Your task to perform on an android device: Set the phone to "Do not disturb". Image 0: 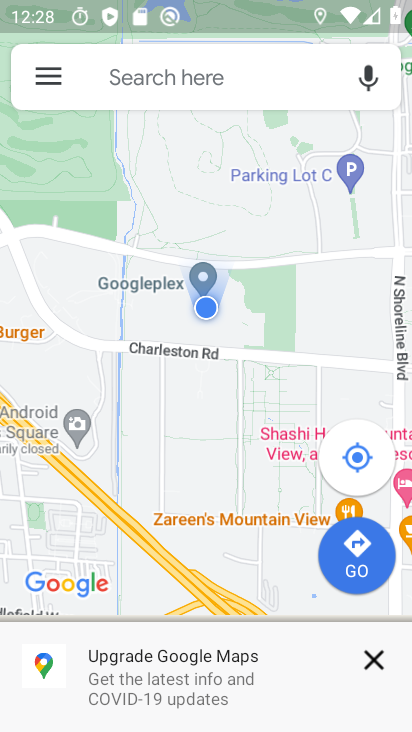
Step 0: press home button
Your task to perform on an android device: Set the phone to "Do not disturb". Image 1: 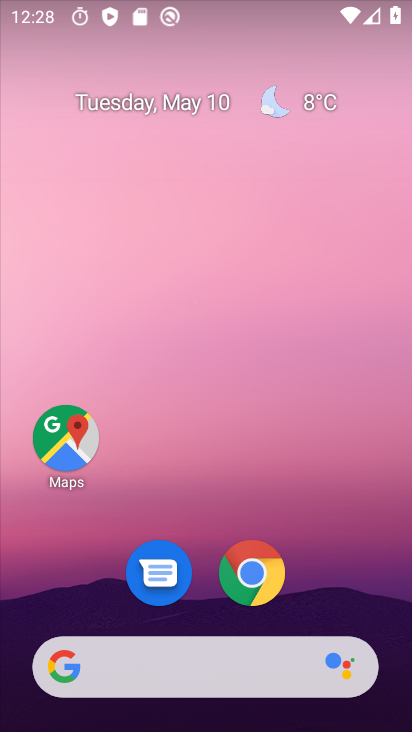
Step 1: drag from (202, 628) to (380, 9)
Your task to perform on an android device: Set the phone to "Do not disturb". Image 2: 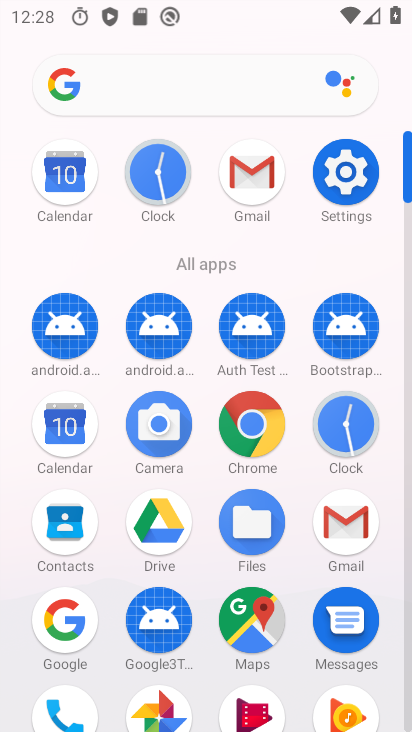
Step 2: click (350, 184)
Your task to perform on an android device: Set the phone to "Do not disturb". Image 3: 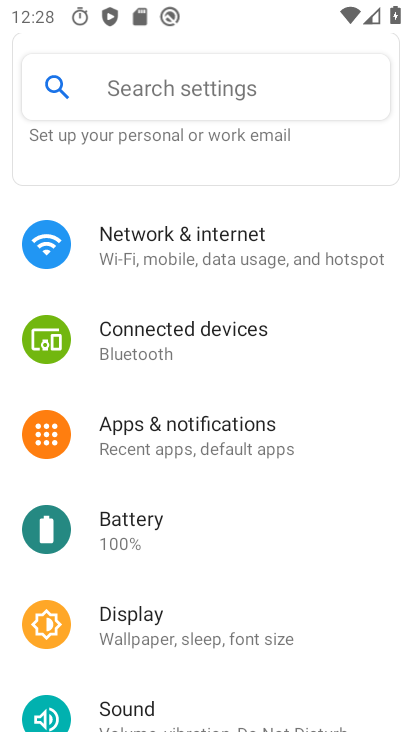
Step 3: drag from (145, 640) to (192, 401)
Your task to perform on an android device: Set the phone to "Do not disturb". Image 4: 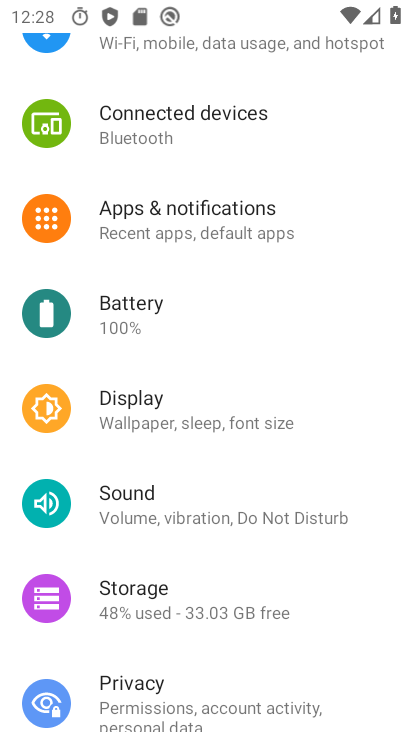
Step 4: click (177, 511)
Your task to perform on an android device: Set the phone to "Do not disturb". Image 5: 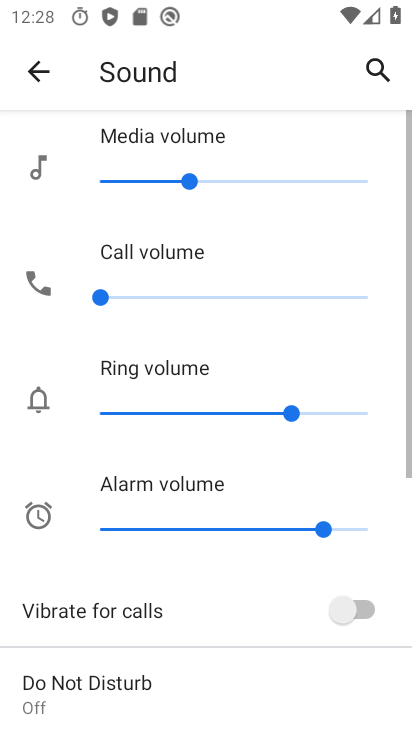
Step 5: drag from (118, 678) to (141, 526)
Your task to perform on an android device: Set the phone to "Do not disturb". Image 6: 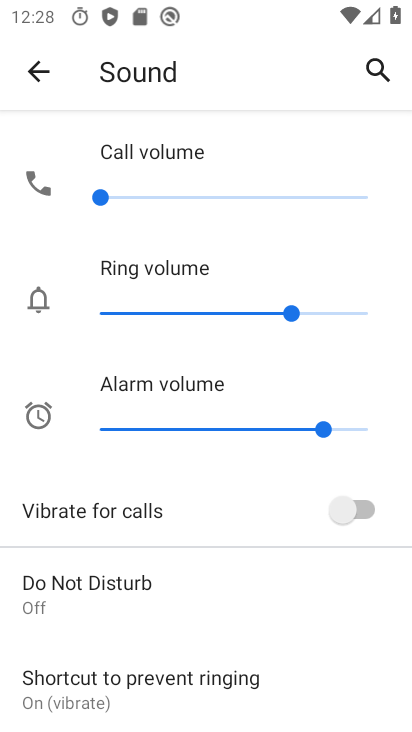
Step 6: click (134, 582)
Your task to perform on an android device: Set the phone to "Do not disturb". Image 7: 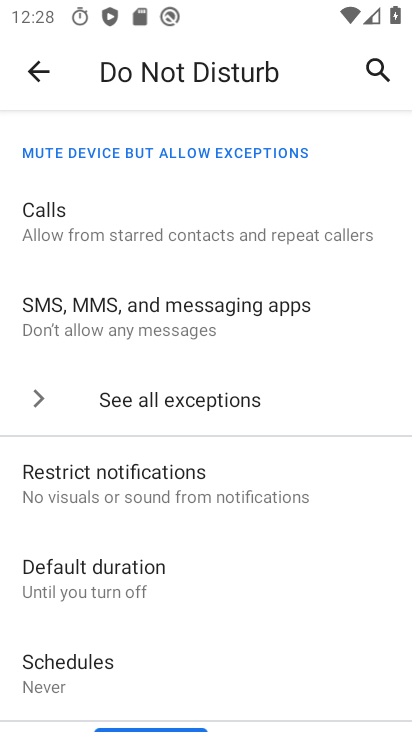
Step 7: drag from (185, 541) to (270, 48)
Your task to perform on an android device: Set the phone to "Do not disturb". Image 8: 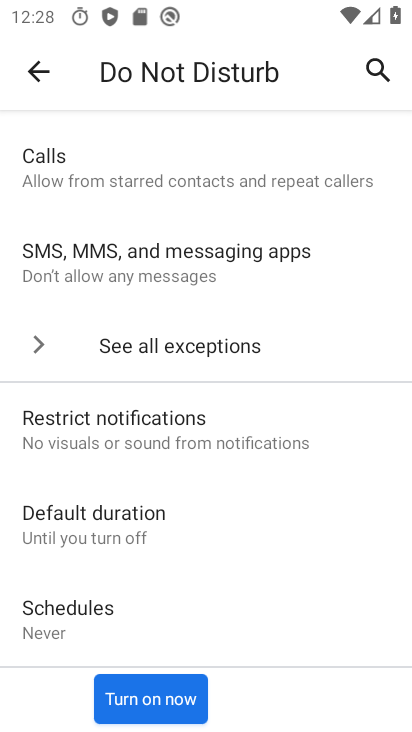
Step 8: click (162, 690)
Your task to perform on an android device: Set the phone to "Do not disturb". Image 9: 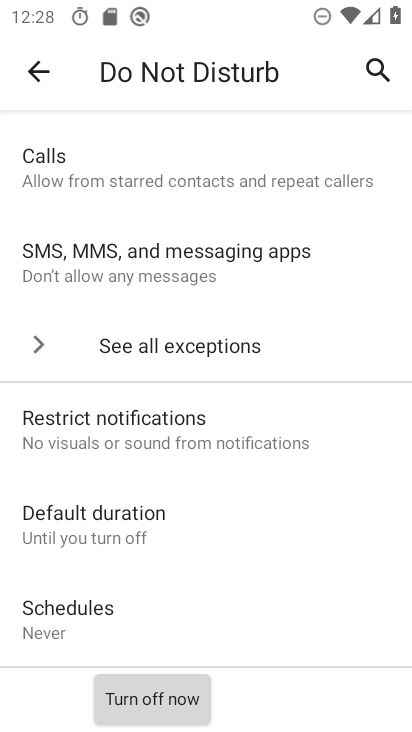
Step 9: task complete